Your task to perform on an android device: check storage Image 0: 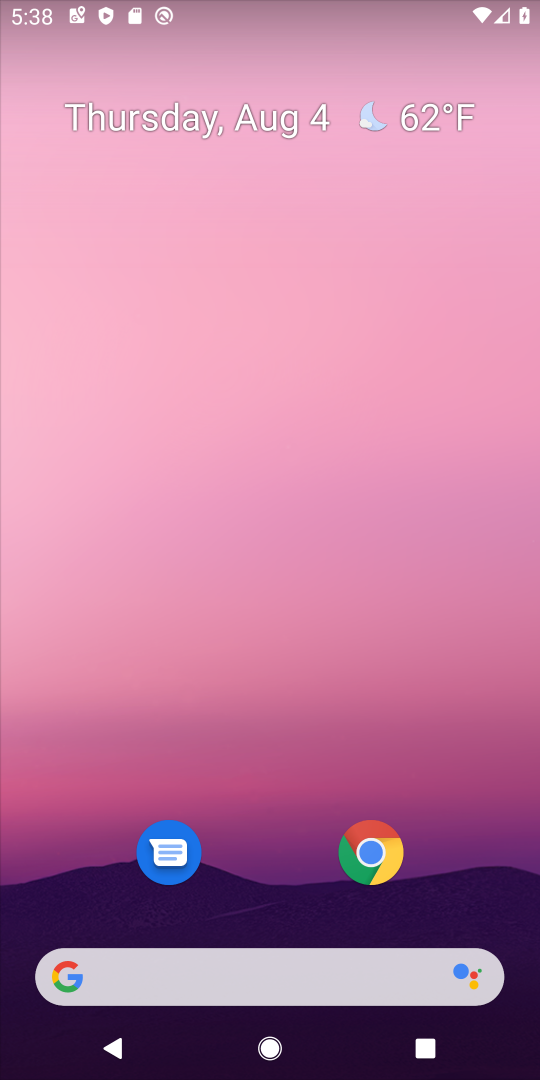
Step 0: drag from (294, 919) to (277, 99)
Your task to perform on an android device: check storage Image 1: 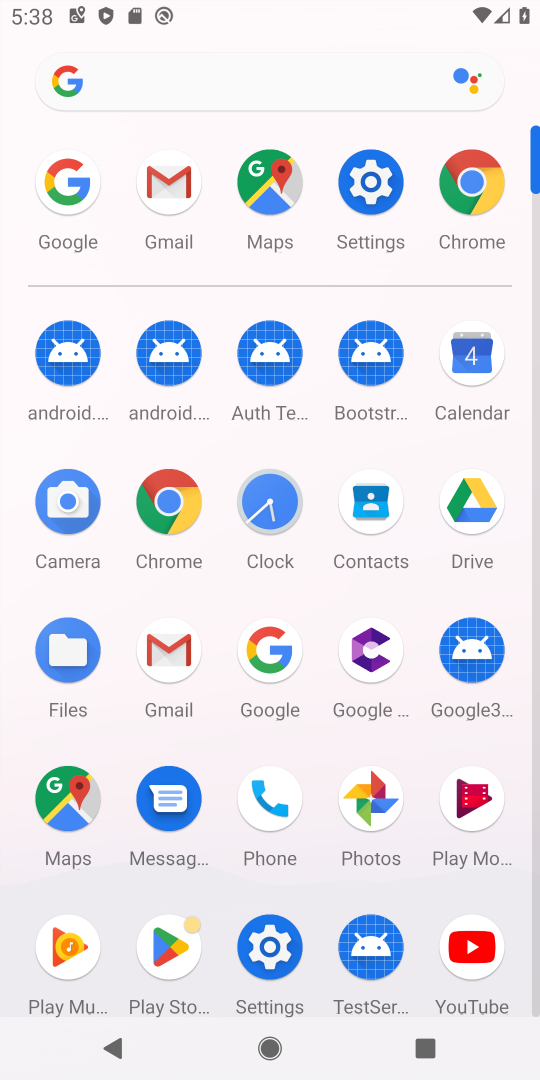
Step 1: click (374, 183)
Your task to perform on an android device: check storage Image 2: 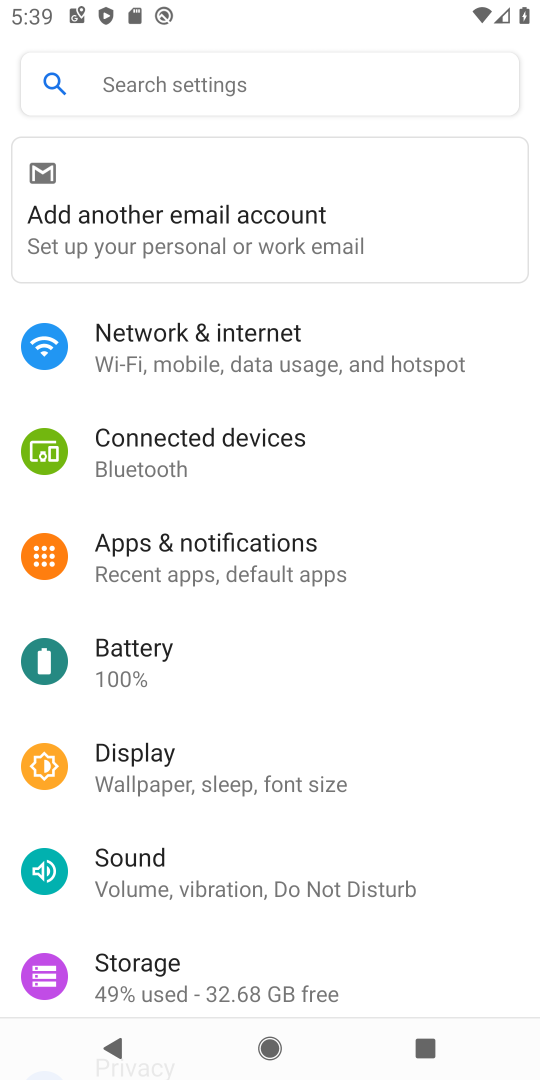
Step 2: click (123, 967)
Your task to perform on an android device: check storage Image 3: 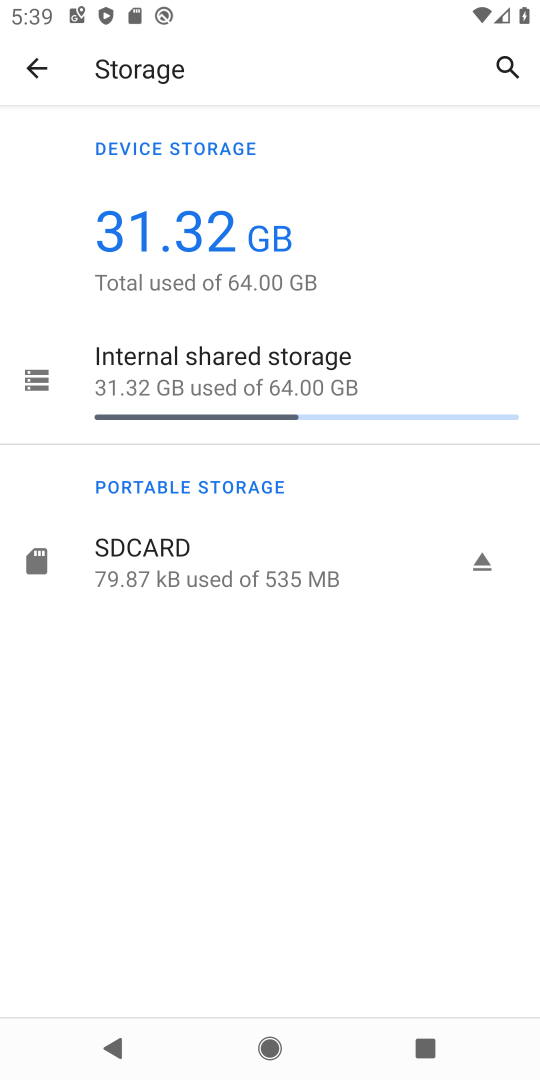
Step 3: task complete